Your task to perform on an android device: Go to privacy settings Image 0: 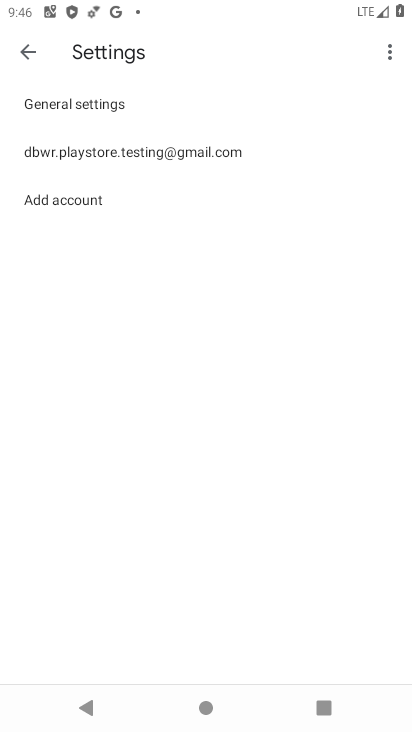
Step 0: press home button
Your task to perform on an android device: Go to privacy settings Image 1: 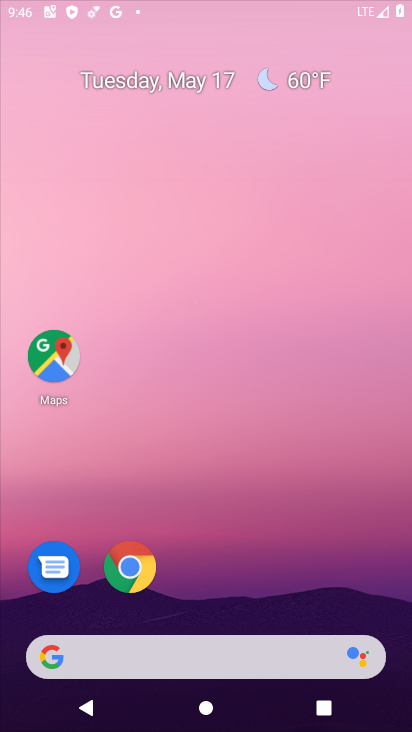
Step 1: drag from (368, 598) to (270, 86)
Your task to perform on an android device: Go to privacy settings Image 2: 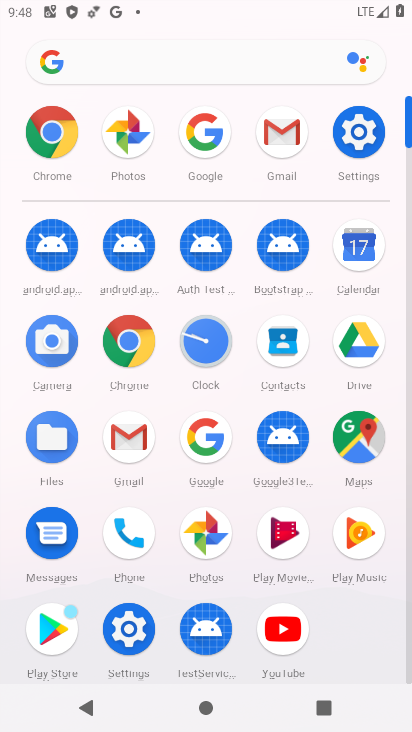
Step 2: click (123, 625)
Your task to perform on an android device: Go to privacy settings Image 3: 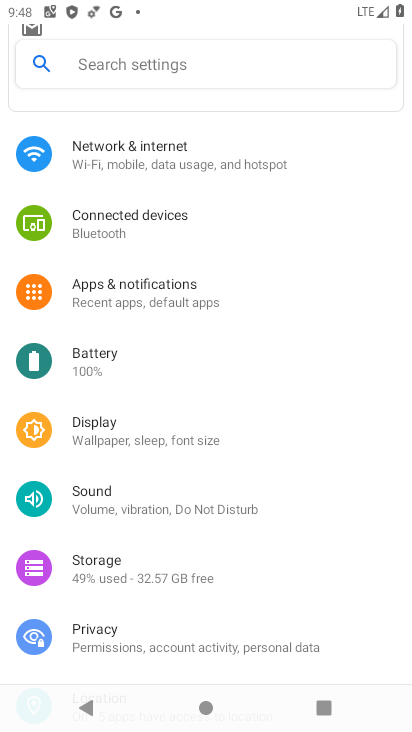
Step 3: click (116, 645)
Your task to perform on an android device: Go to privacy settings Image 4: 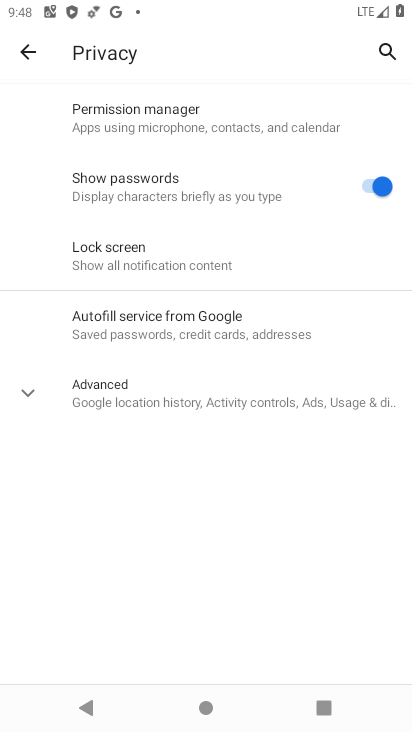
Step 4: task complete